Your task to perform on an android device: Open settings on Google Maps Image 0: 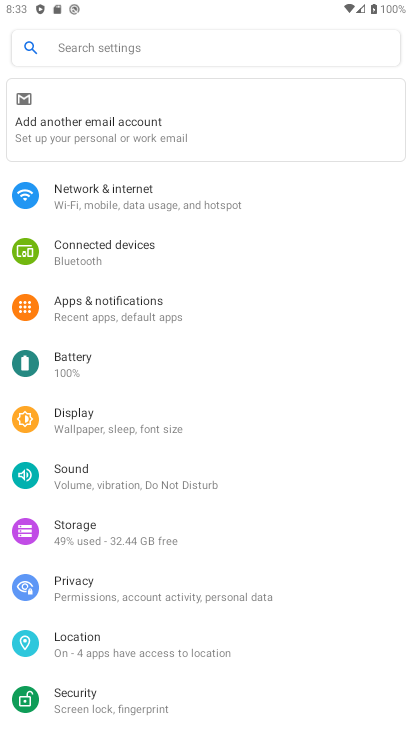
Step 0: press home button
Your task to perform on an android device: Open settings on Google Maps Image 1: 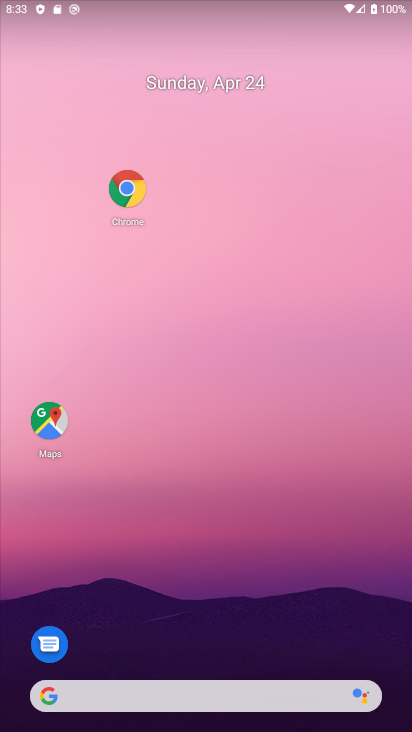
Step 1: drag from (233, 204) to (211, 0)
Your task to perform on an android device: Open settings on Google Maps Image 2: 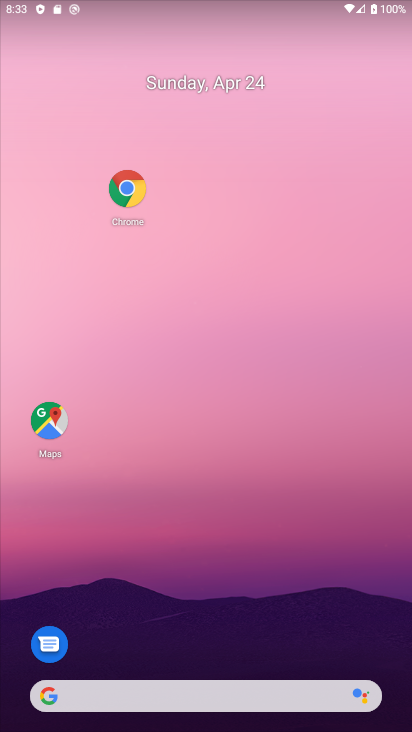
Step 2: drag from (254, 721) to (213, 3)
Your task to perform on an android device: Open settings on Google Maps Image 3: 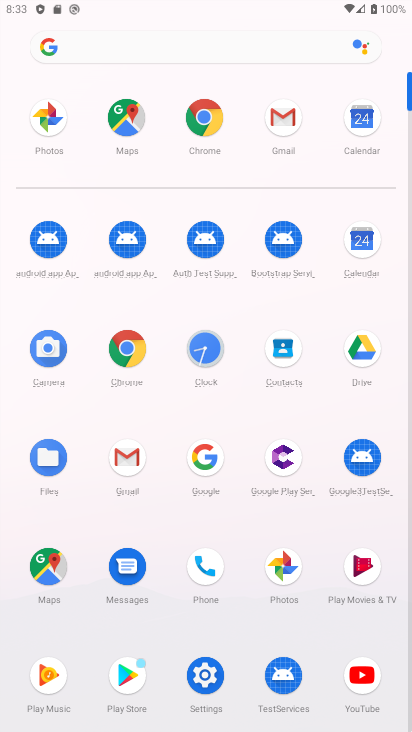
Step 3: click (42, 570)
Your task to perform on an android device: Open settings on Google Maps Image 4: 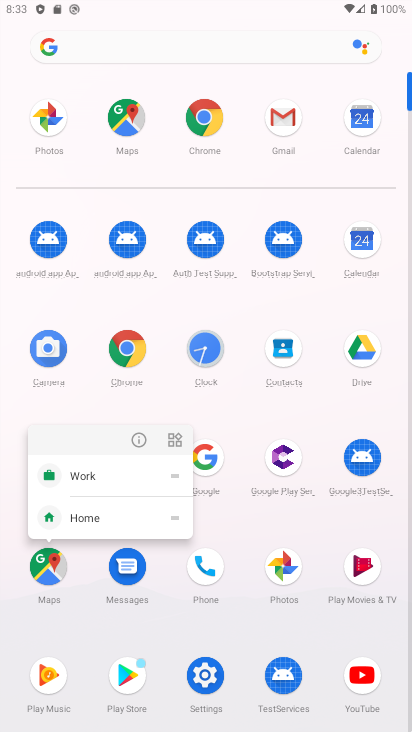
Step 4: click (134, 433)
Your task to perform on an android device: Open settings on Google Maps Image 5: 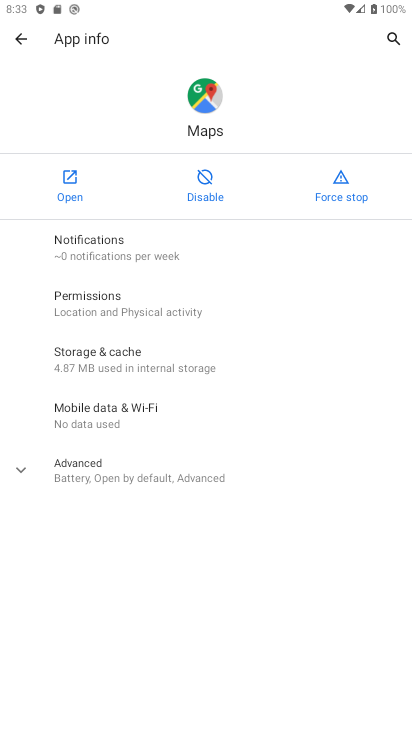
Step 5: click (58, 188)
Your task to perform on an android device: Open settings on Google Maps Image 6: 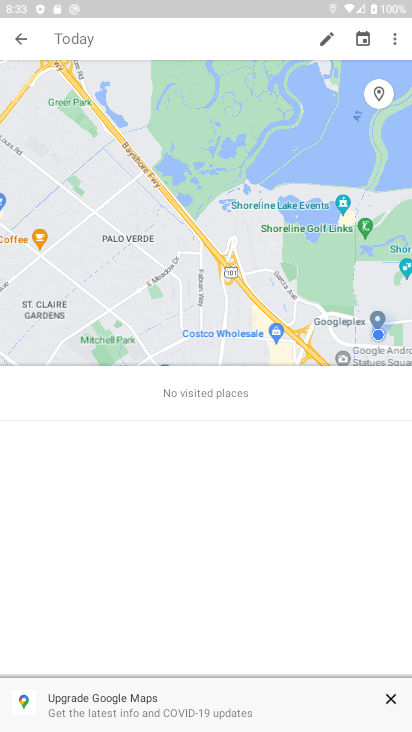
Step 6: drag from (241, 548) to (239, 346)
Your task to perform on an android device: Open settings on Google Maps Image 7: 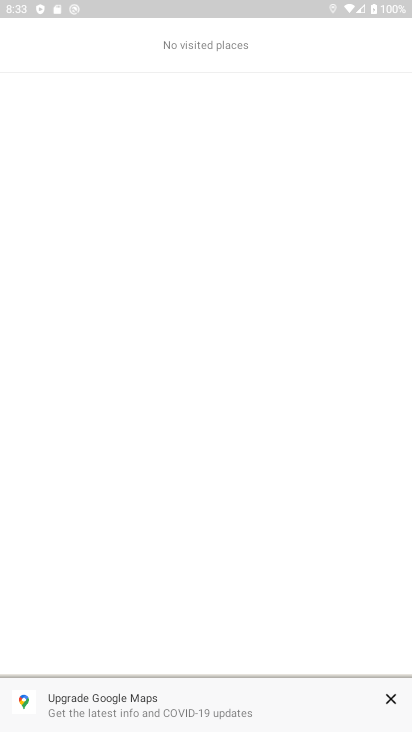
Step 7: drag from (101, 203) to (405, 721)
Your task to perform on an android device: Open settings on Google Maps Image 8: 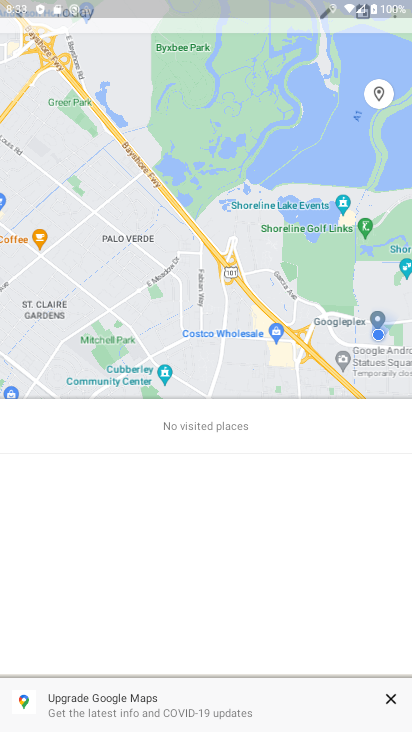
Step 8: click (392, 698)
Your task to perform on an android device: Open settings on Google Maps Image 9: 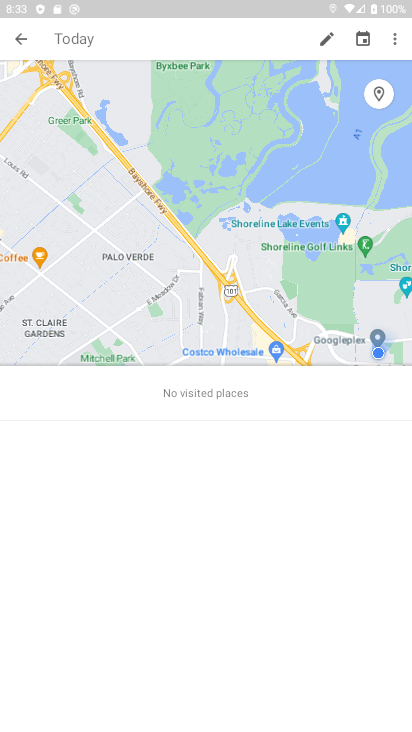
Step 9: click (12, 32)
Your task to perform on an android device: Open settings on Google Maps Image 10: 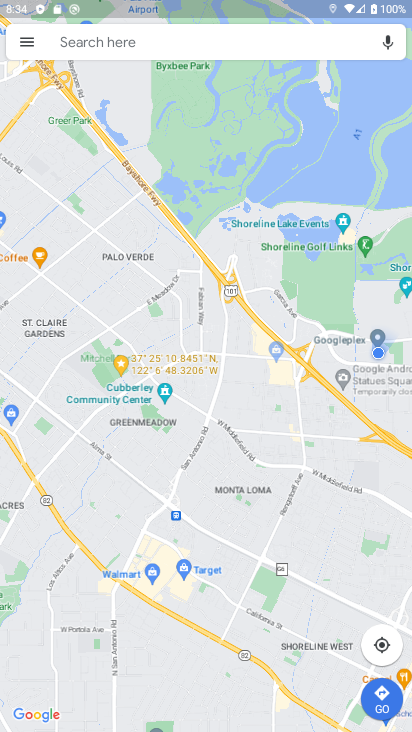
Step 10: click (24, 35)
Your task to perform on an android device: Open settings on Google Maps Image 11: 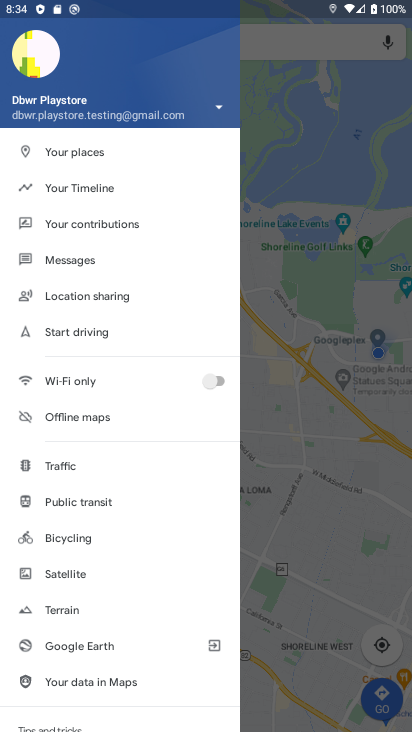
Step 11: drag from (75, 620) to (99, 165)
Your task to perform on an android device: Open settings on Google Maps Image 12: 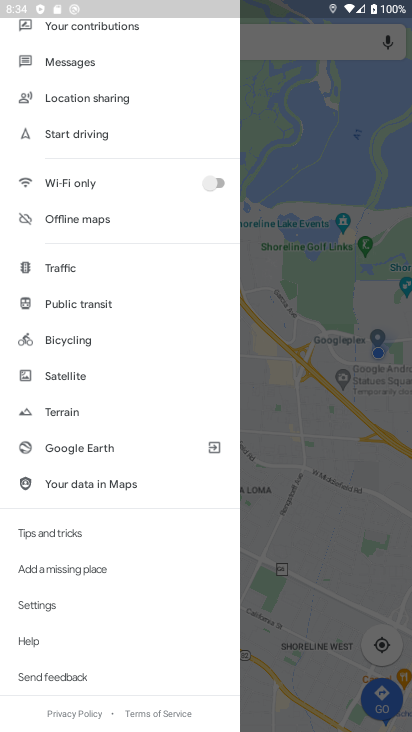
Step 12: click (46, 601)
Your task to perform on an android device: Open settings on Google Maps Image 13: 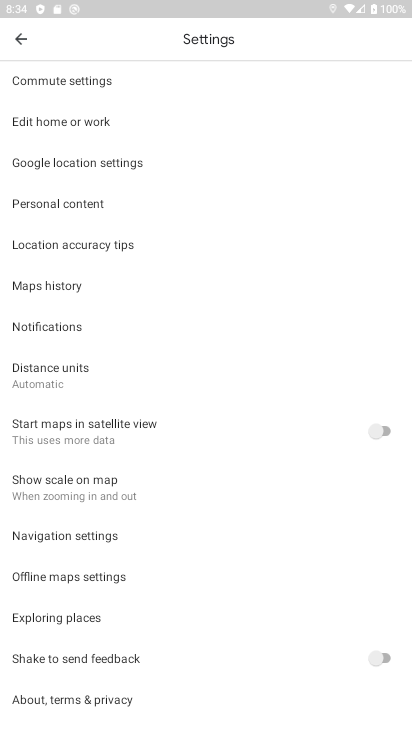
Step 13: task complete